Your task to perform on an android device: Open ESPN.com Image 0: 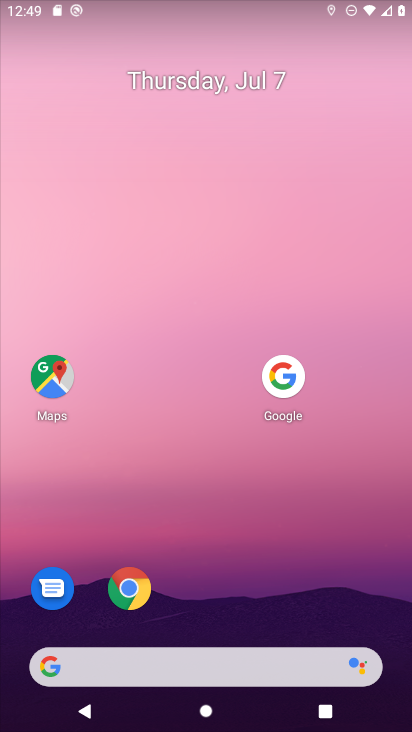
Step 0: click (114, 586)
Your task to perform on an android device: Open ESPN.com Image 1: 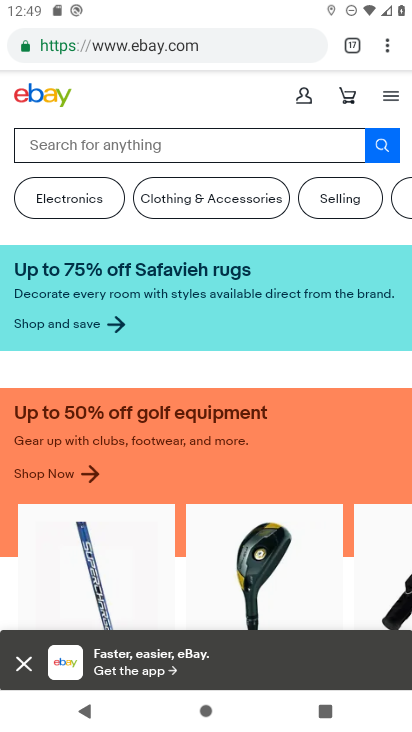
Step 1: drag from (390, 49) to (288, 95)
Your task to perform on an android device: Open ESPN.com Image 2: 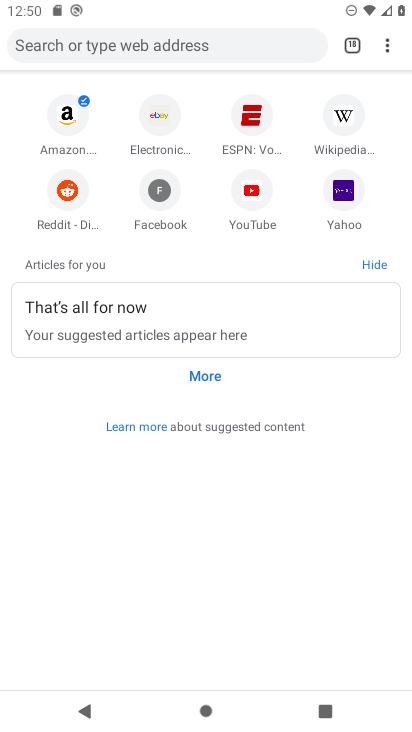
Step 2: click (255, 124)
Your task to perform on an android device: Open ESPN.com Image 3: 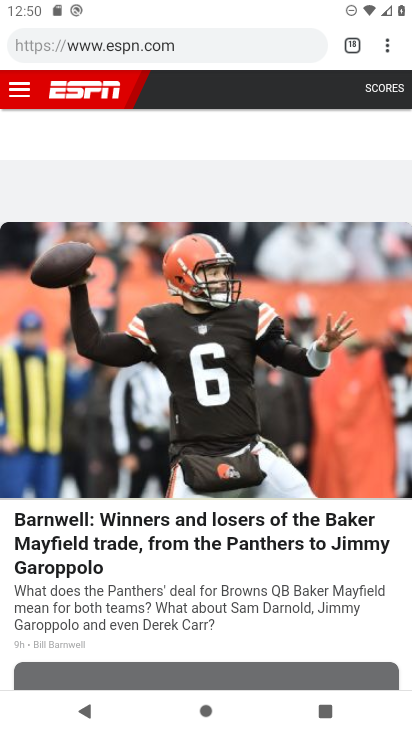
Step 3: task complete